Your task to perform on an android device: Open the calendar and show me this week's events? Image 0: 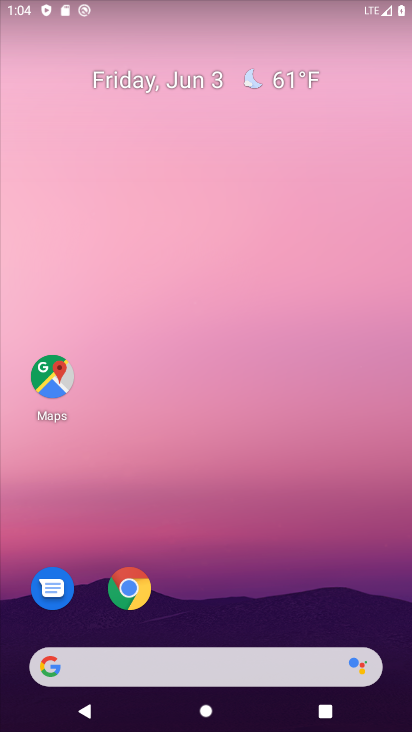
Step 0: drag from (25, 597) to (275, 176)
Your task to perform on an android device: Open the calendar and show me this week's events? Image 1: 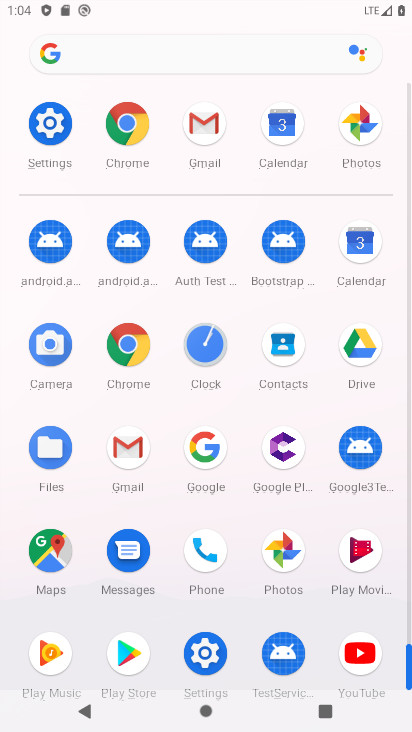
Step 1: click (285, 116)
Your task to perform on an android device: Open the calendar and show me this week's events? Image 2: 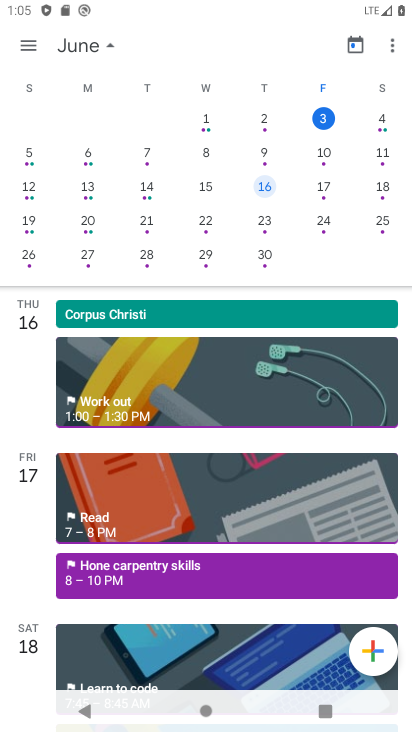
Step 2: task complete